Your task to perform on an android device: Open the web browser Image 0: 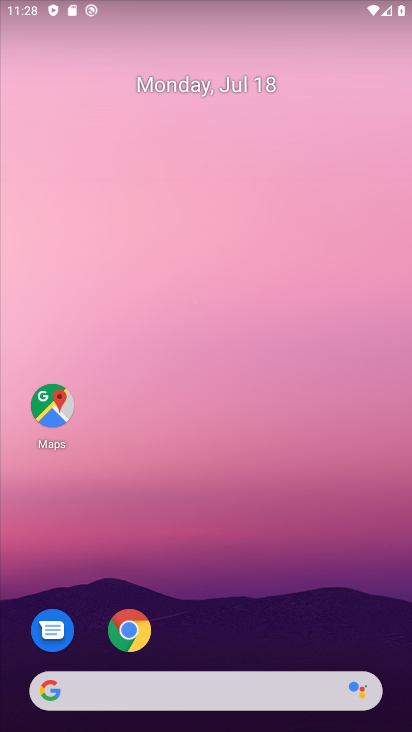
Step 0: click (141, 625)
Your task to perform on an android device: Open the web browser Image 1: 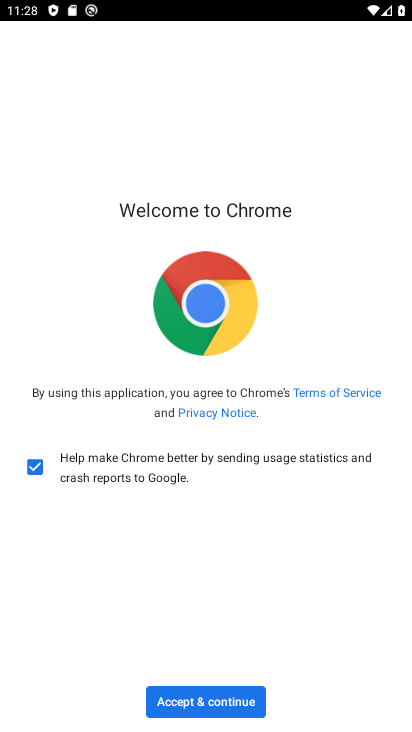
Step 1: click (216, 703)
Your task to perform on an android device: Open the web browser Image 2: 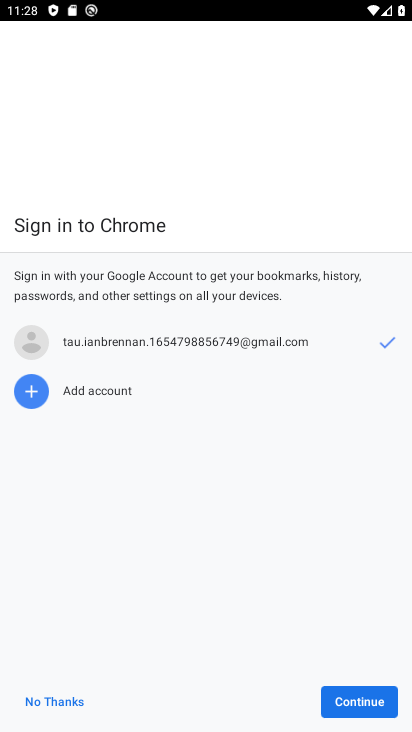
Step 2: click (393, 713)
Your task to perform on an android device: Open the web browser Image 3: 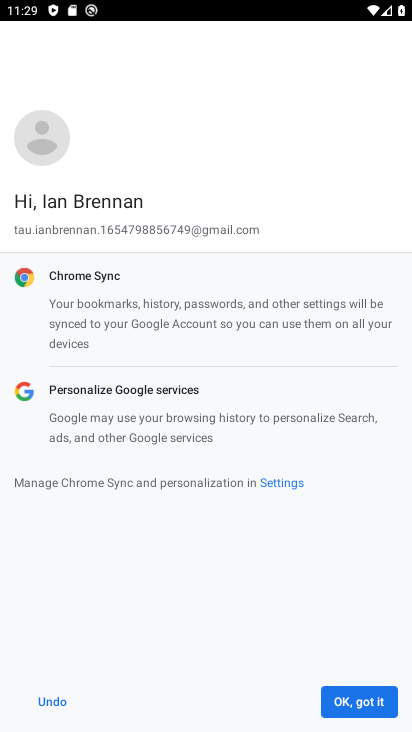
Step 3: click (373, 709)
Your task to perform on an android device: Open the web browser Image 4: 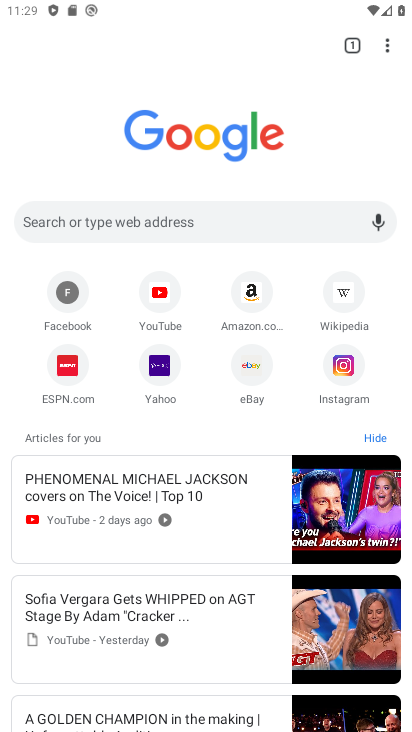
Step 4: task complete